Your task to perform on an android device: Open Google Chrome Image 0: 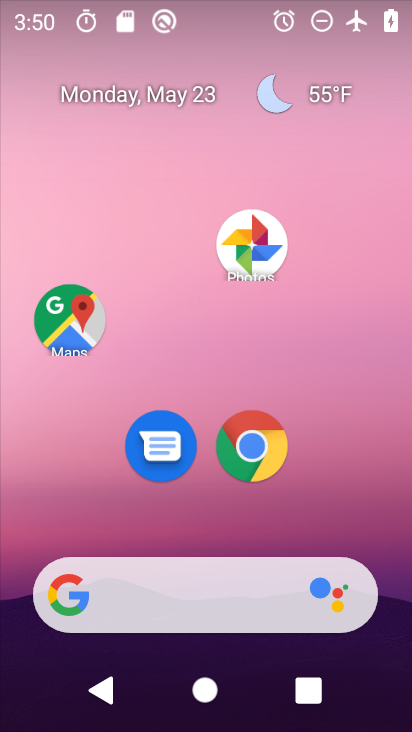
Step 0: click (254, 425)
Your task to perform on an android device: Open Google Chrome Image 1: 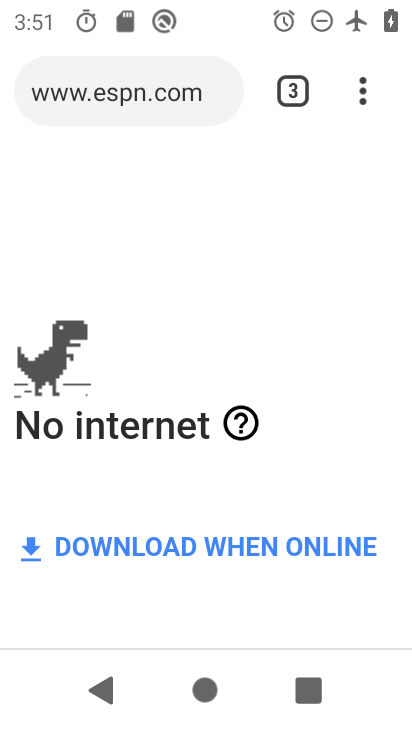
Step 1: task complete